Your task to perform on an android device: turn off data saver in the chrome app Image 0: 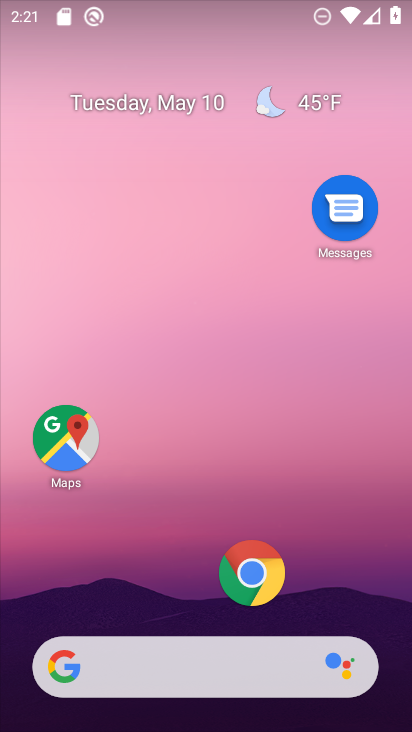
Step 0: drag from (216, 621) to (197, 415)
Your task to perform on an android device: turn off data saver in the chrome app Image 1: 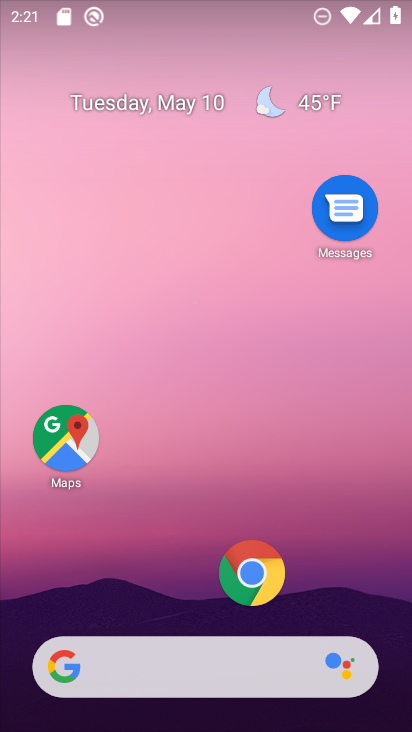
Step 1: drag from (206, 611) to (214, 279)
Your task to perform on an android device: turn off data saver in the chrome app Image 2: 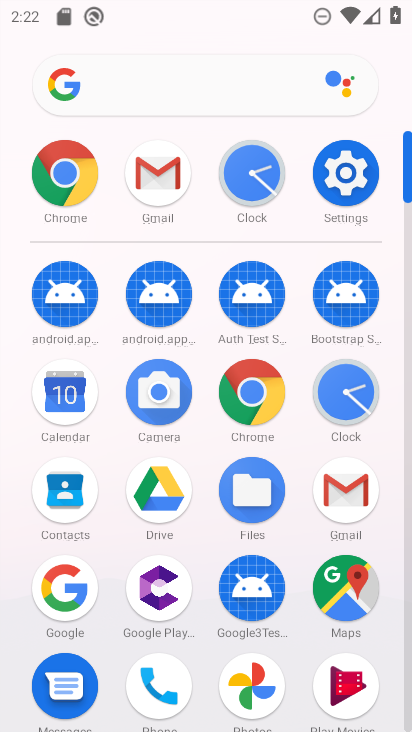
Step 2: click (264, 392)
Your task to perform on an android device: turn off data saver in the chrome app Image 3: 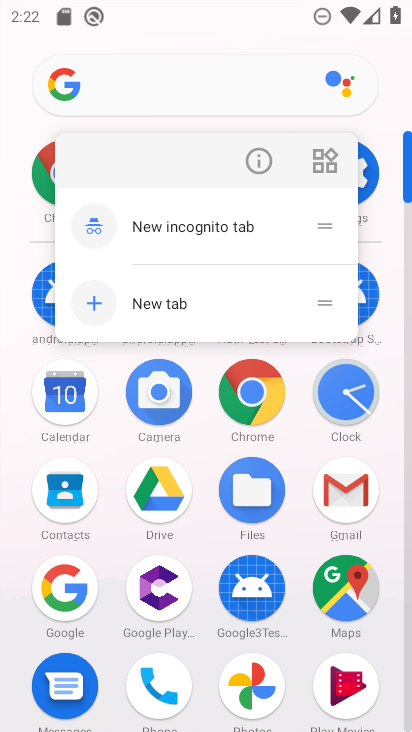
Step 3: click (251, 150)
Your task to perform on an android device: turn off data saver in the chrome app Image 4: 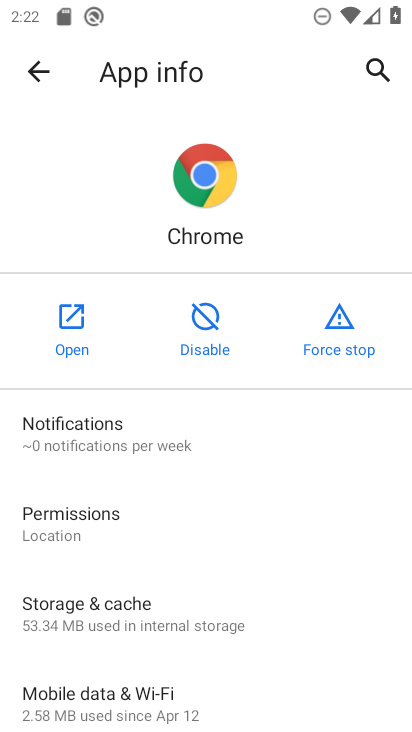
Step 4: click (69, 315)
Your task to perform on an android device: turn off data saver in the chrome app Image 5: 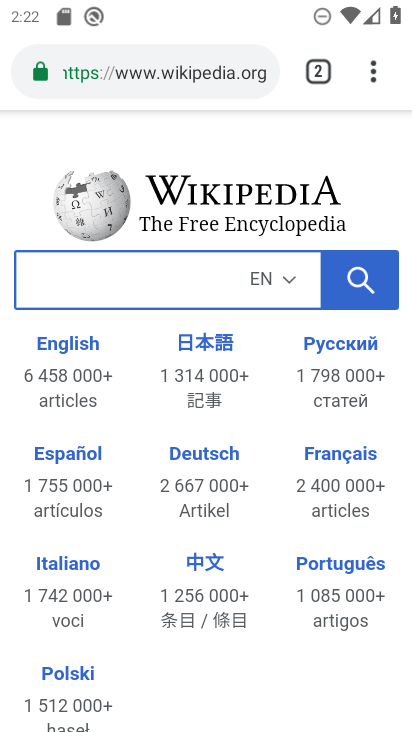
Step 5: drag from (114, 624) to (132, 242)
Your task to perform on an android device: turn off data saver in the chrome app Image 6: 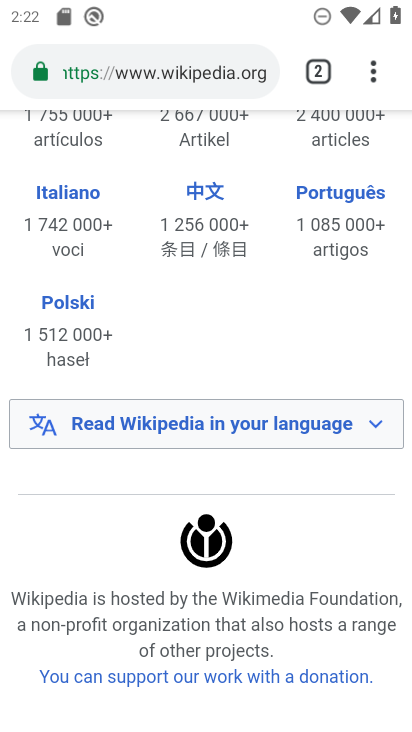
Step 6: drag from (132, 175) to (154, 602)
Your task to perform on an android device: turn off data saver in the chrome app Image 7: 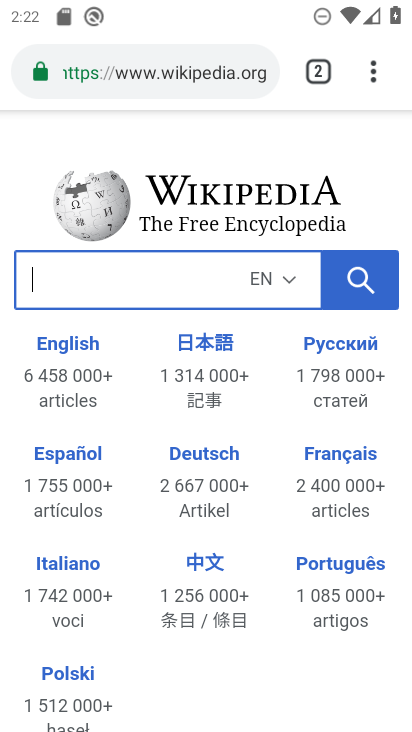
Step 7: drag from (367, 72) to (147, 556)
Your task to perform on an android device: turn off data saver in the chrome app Image 8: 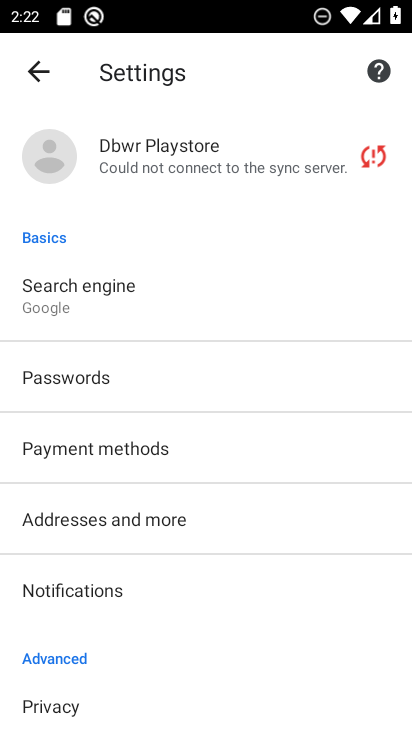
Step 8: drag from (201, 668) to (266, 273)
Your task to perform on an android device: turn off data saver in the chrome app Image 9: 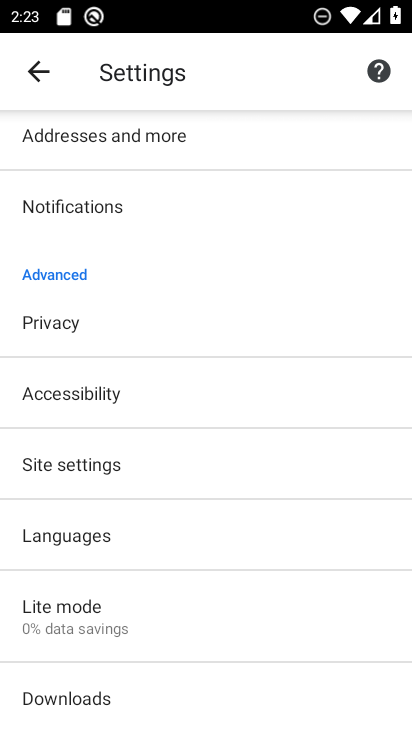
Step 9: click (110, 466)
Your task to perform on an android device: turn off data saver in the chrome app Image 10: 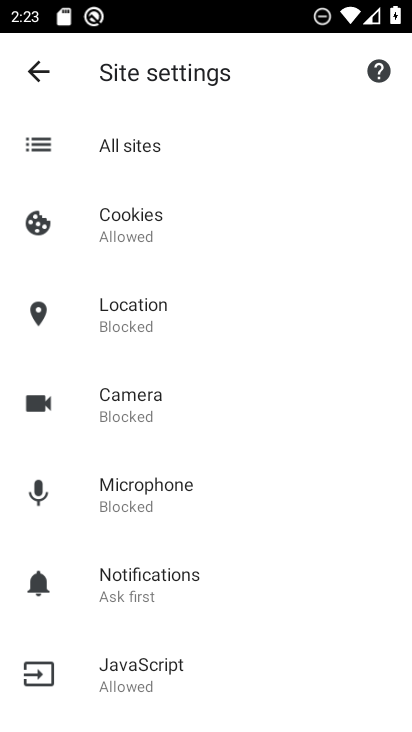
Step 10: click (31, 56)
Your task to perform on an android device: turn off data saver in the chrome app Image 11: 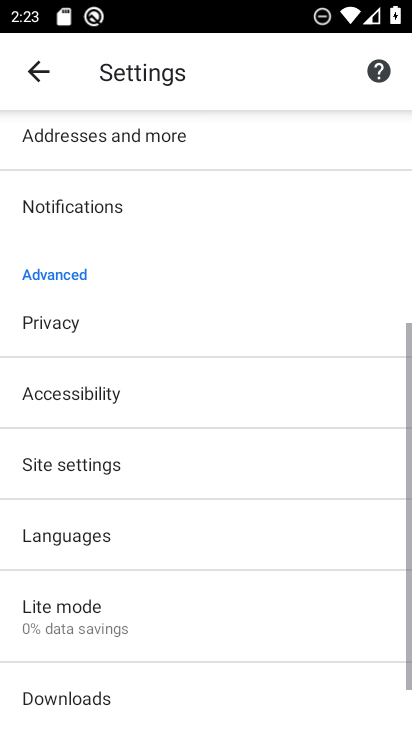
Step 11: click (136, 616)
Your task to perform on an android device: turn off data saver in the chrome app Image 12: 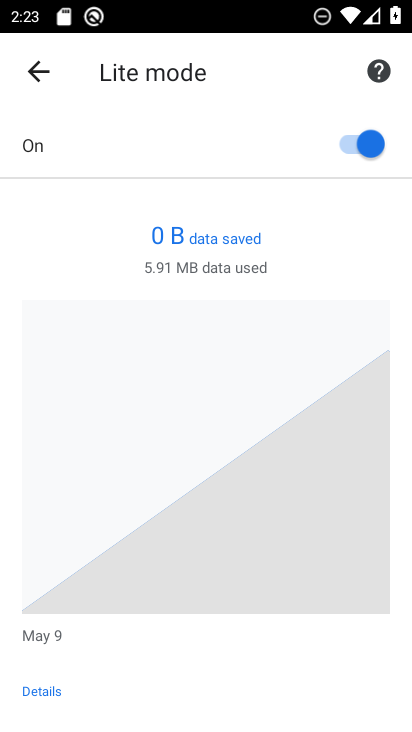
Step 12: drag from (198, 675) to (259, 367)
Your task to perform on an android device: turn off data saver in the chrome app Image 13: 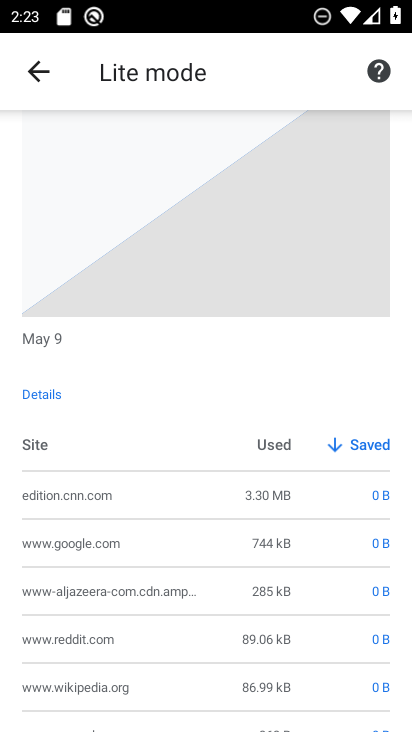
Step 13: drag from (236, 351) to (305, 719)
Your task to perform on an android device: turn off data saver in the chrome app Image 14: 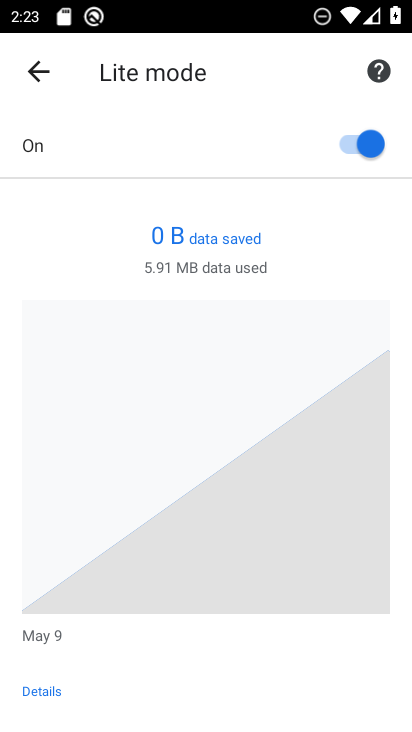
Step 14: drag from (278, 239) to (304, 657)
Your task to perform on an android device: turn off data saver in the chrome app Image 15: 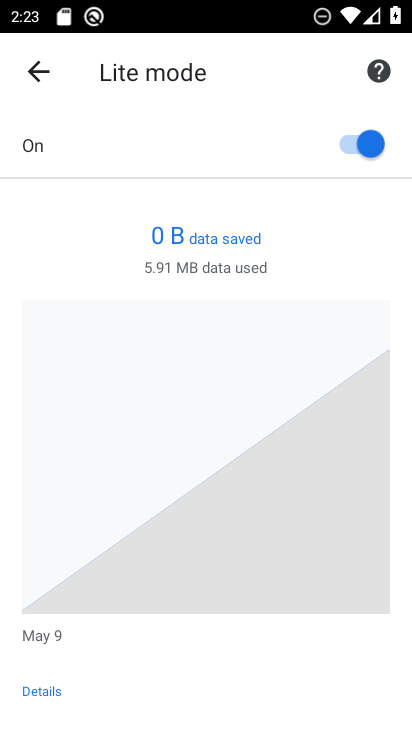
Step 15: click (368, 136)
Your task to perform on an android device: turn off data saver in the chrome app Image 16: 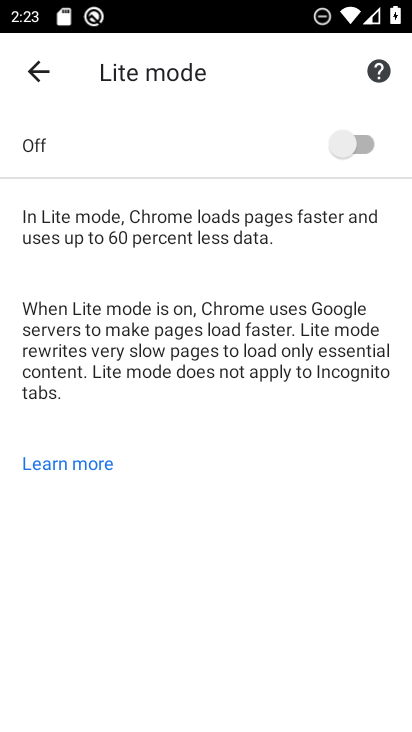
Step 16: task complete